Your task to perform on an android device: Open the web browser Image 0: 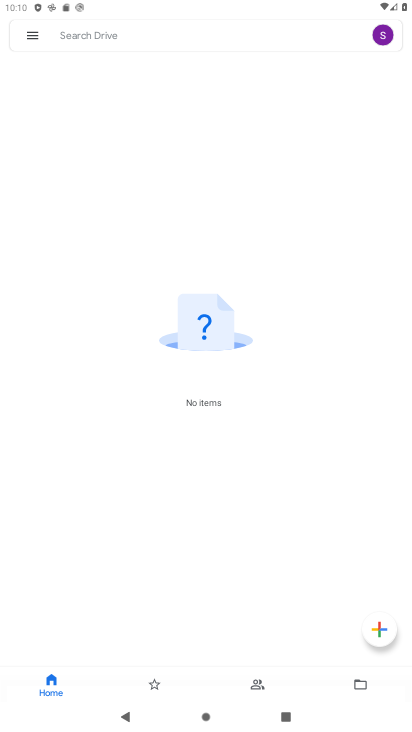
Step 0: click (296, 628)
Your task to perform on an android device: Open the web browser Image 1: 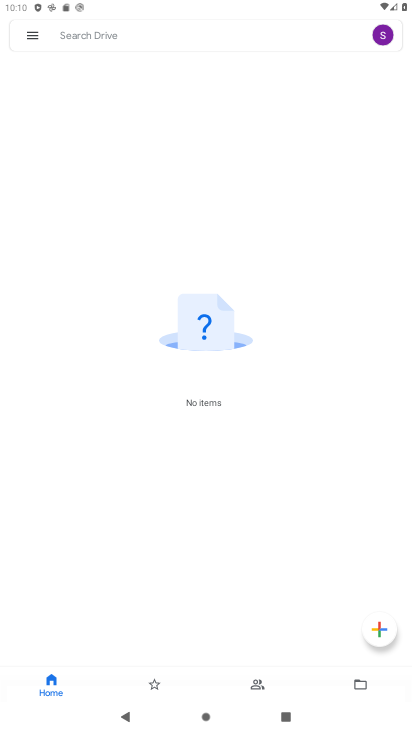
Step 1: press home button
Your task to perform on an android device: Open the web browser Image 2: 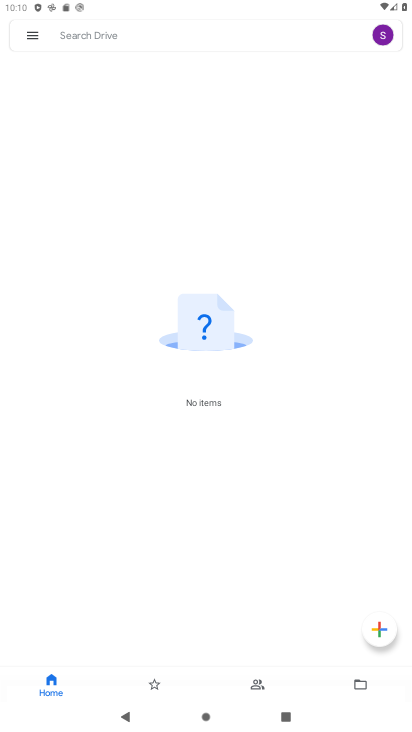
Step 2: press home button
Your task to perform on an android device: Open the web browser Image 3: 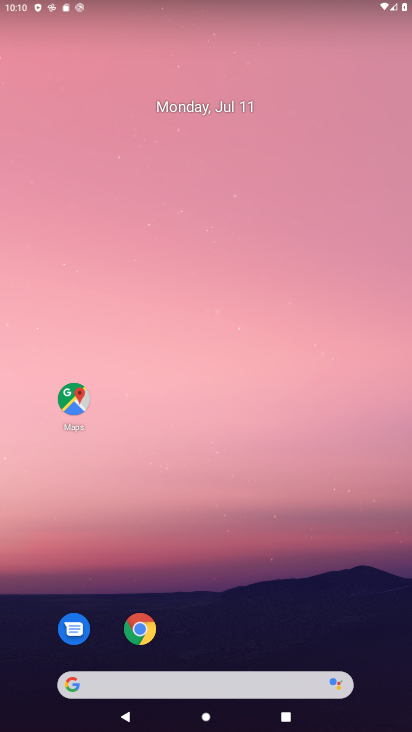
Step 3: click (152, 628)
Your task to perform on an android device: Open the web browser Image 4: 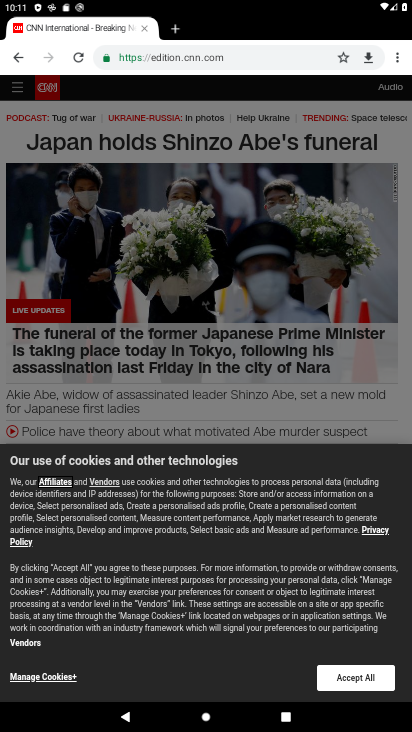
Step 4: task complete